Your task to perform on an android device: Go to wifi settings Image 0: 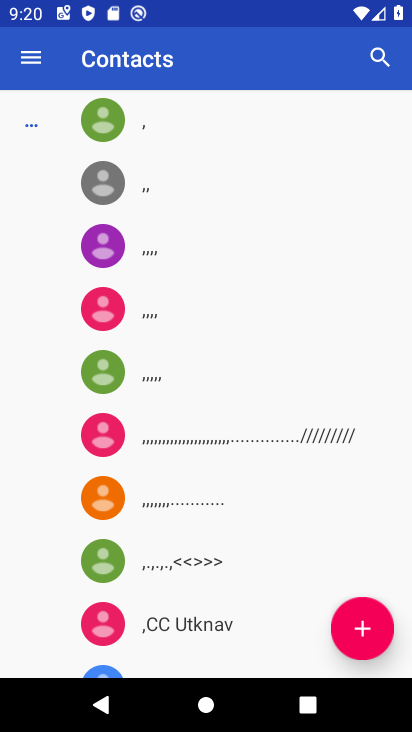
Step 0: press home button
Your task to perform on an android device: Go to wifi settings Image 1: 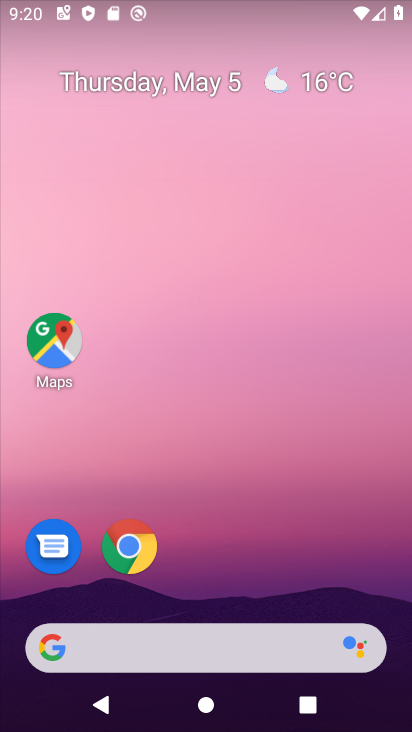
Step 1: drag from (246, 579) to (218, 210)
Your task to perform on an android device: Go to wifi settings Image 2: 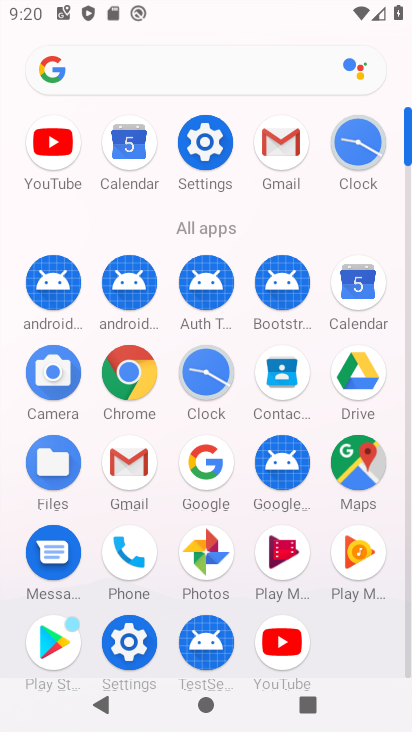
Step 2: click (124, 636)
Your task to perform on an android device: Go to wifi settings Image 3: 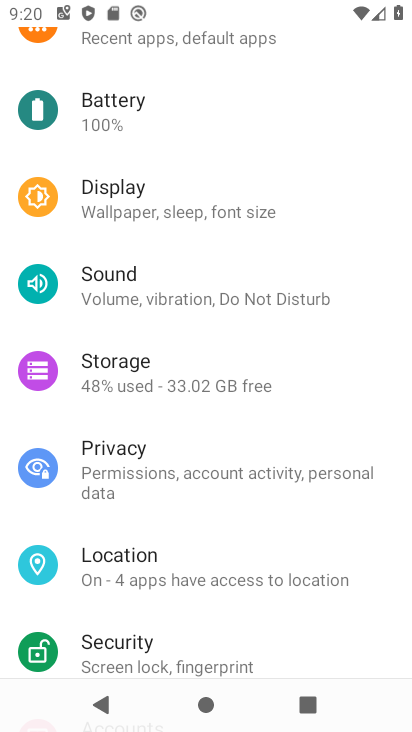
Step 3: drag from (137, 507) to (161, 599)
Your task to perform on an android device: Go to wifi settings Image 4: 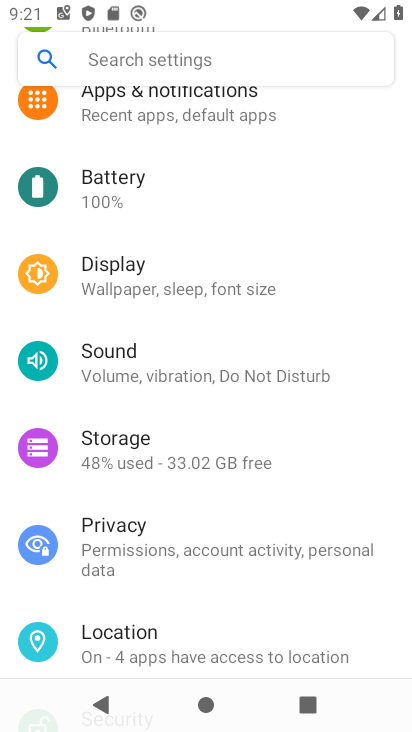
Step 4: drag from (146, 479) to (168, 564)
Your task to perform on an android device: Go to wifi settings Image 5: 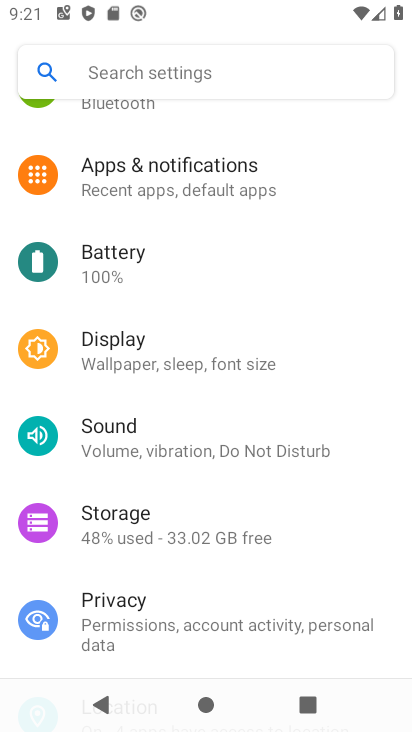
Step 5: drag from (164, 460) to (179, 582)
Your task to perform on an android device: Go to wifi settings Image 6: 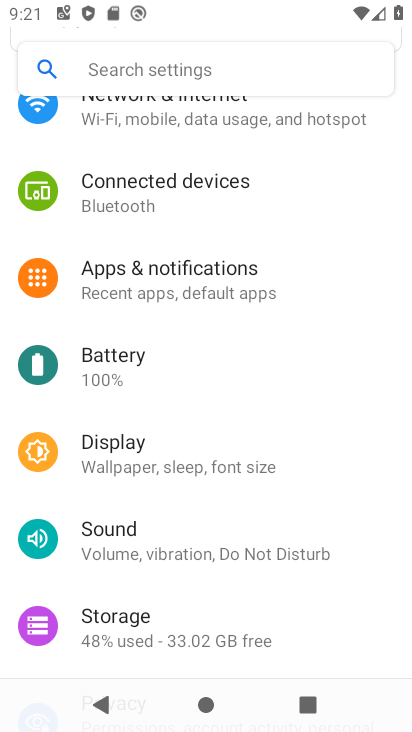
Step 6: drag from (155, 473) to (191, 581)
Your task to perform on an android device: Go to wifi settings Image 7: 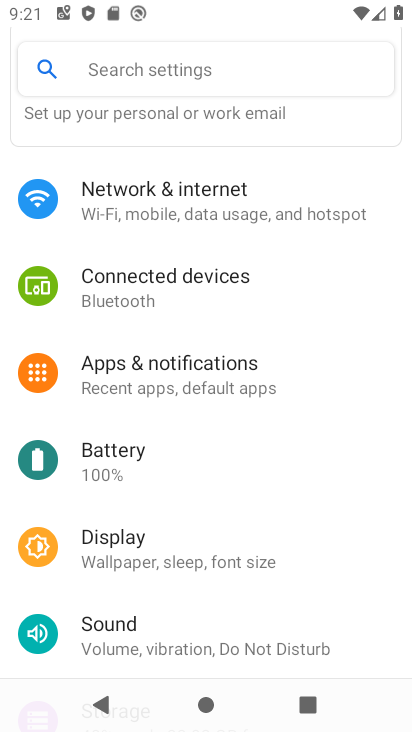
Step 7: drag from (173, 458) to (201, 573)
Your task to perform on an android device: Go to wifi settings Image 8: 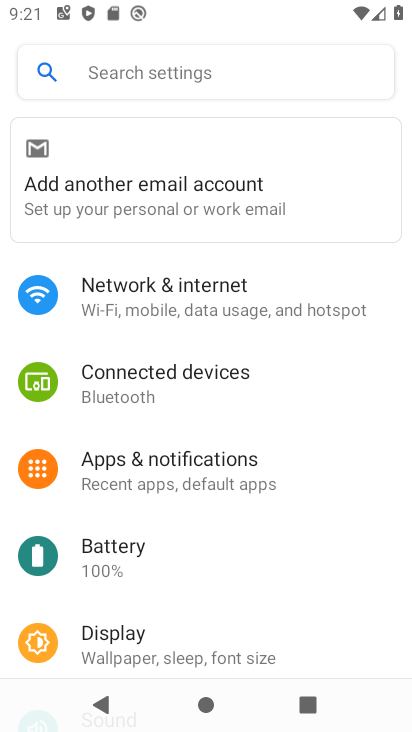
Step 8: click (181, 314)
Your task to perform on an android device: Go to wifi settings Image 9: 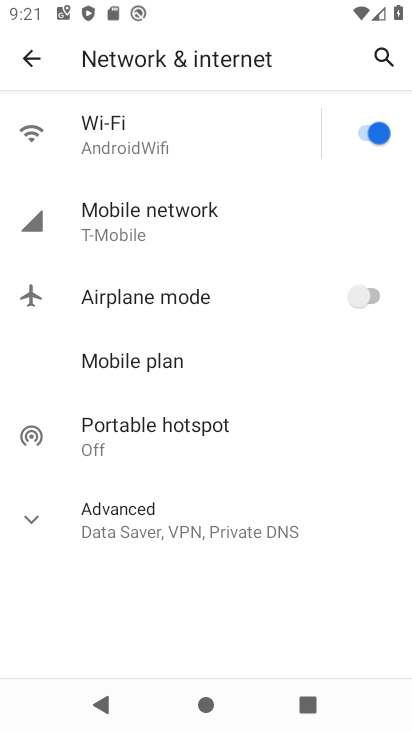
Step 9: click (150, 153)
Your task to perform on an android device: Go to wifi settings Image 10: 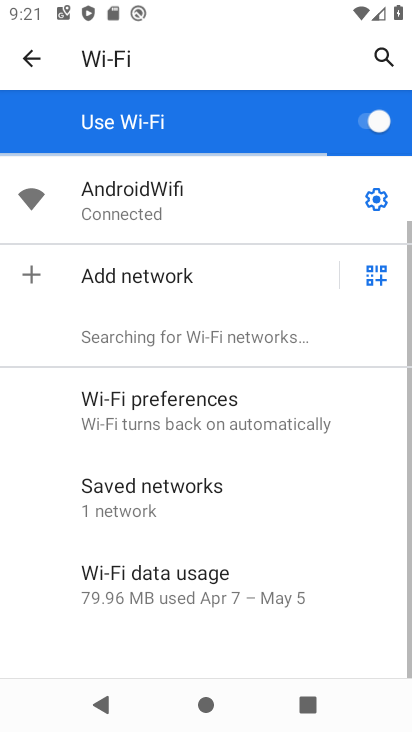
Step 10: task complete